Your task to perform on an android device: toggle location history Image 0: 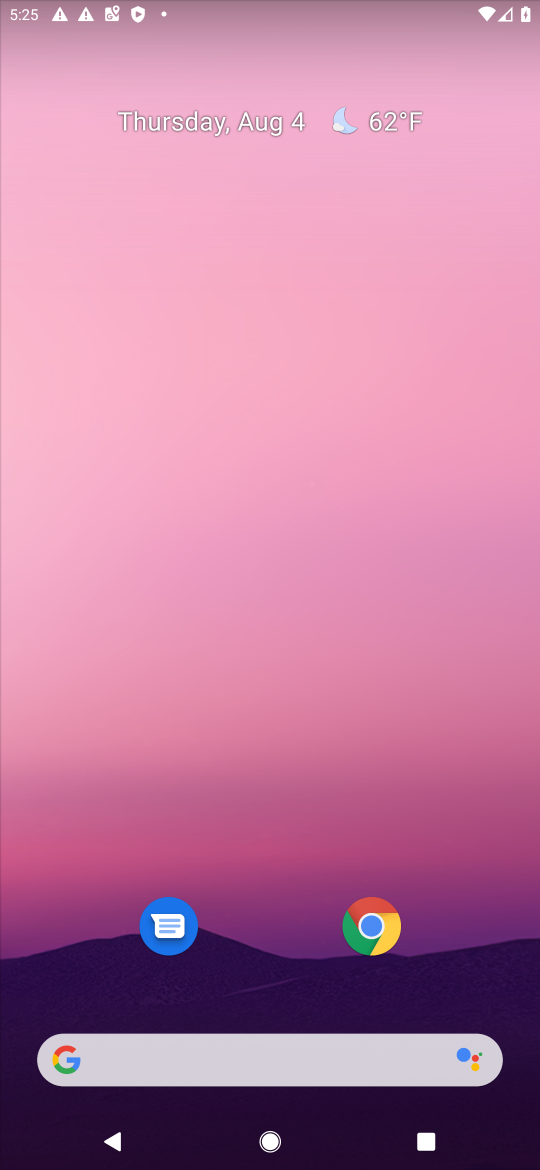
Step 0: press home button
Your task to perform on an android device: toggle location history Image 1: 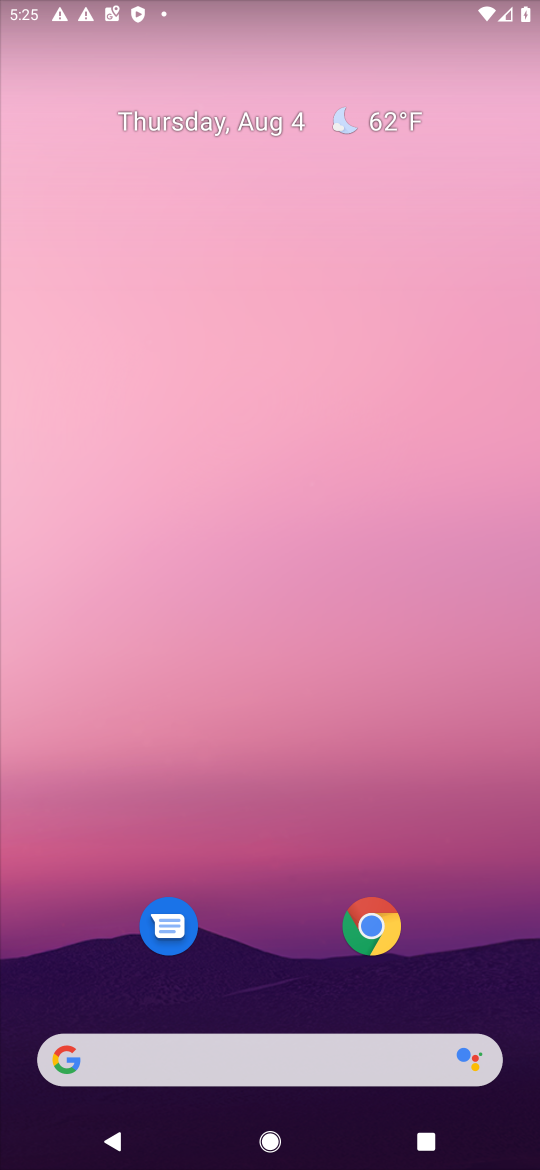
Step 1: drag from (281, 1002) to (385, 173)
Your task to perform on an android device: toggle location history Image 2: 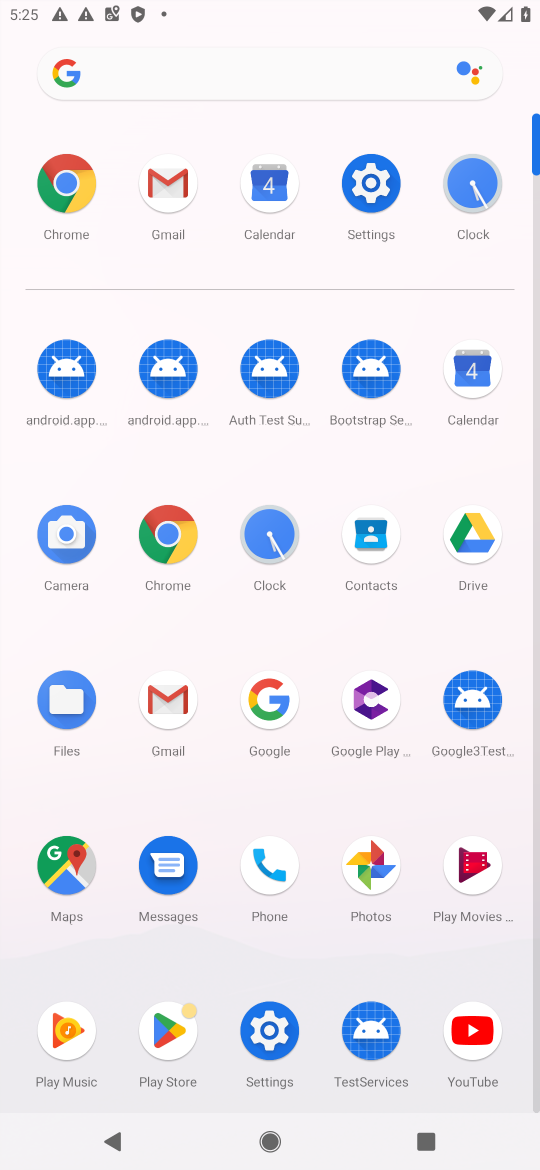
Step 2: click (370, 188)
Your task to perform on an android device: toggle location history Image 3: 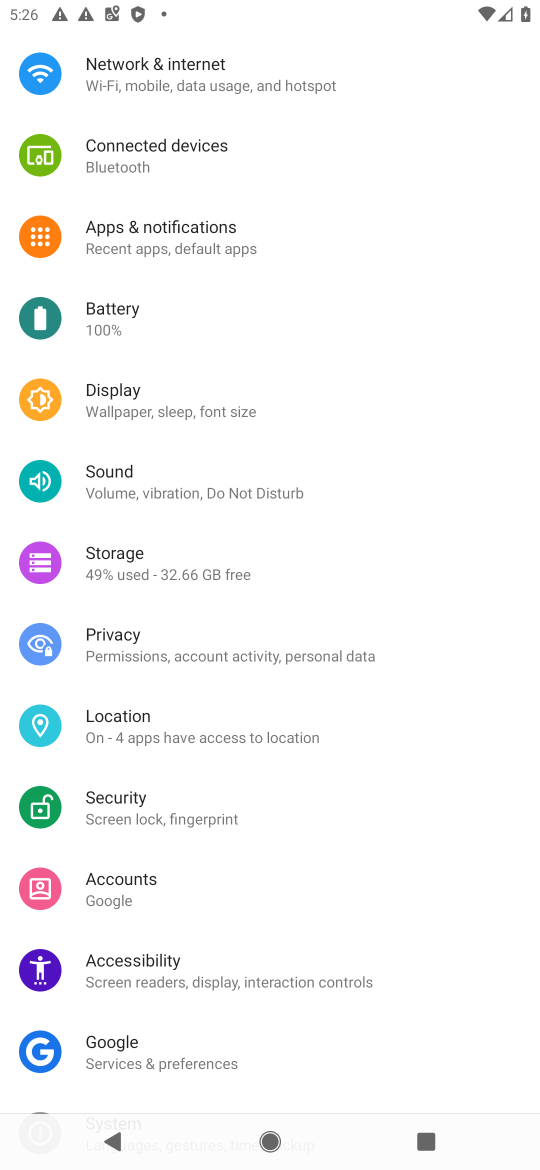
Step 3: click (101, 730)
Your task to perform on an android device: toggle location history Image 4: 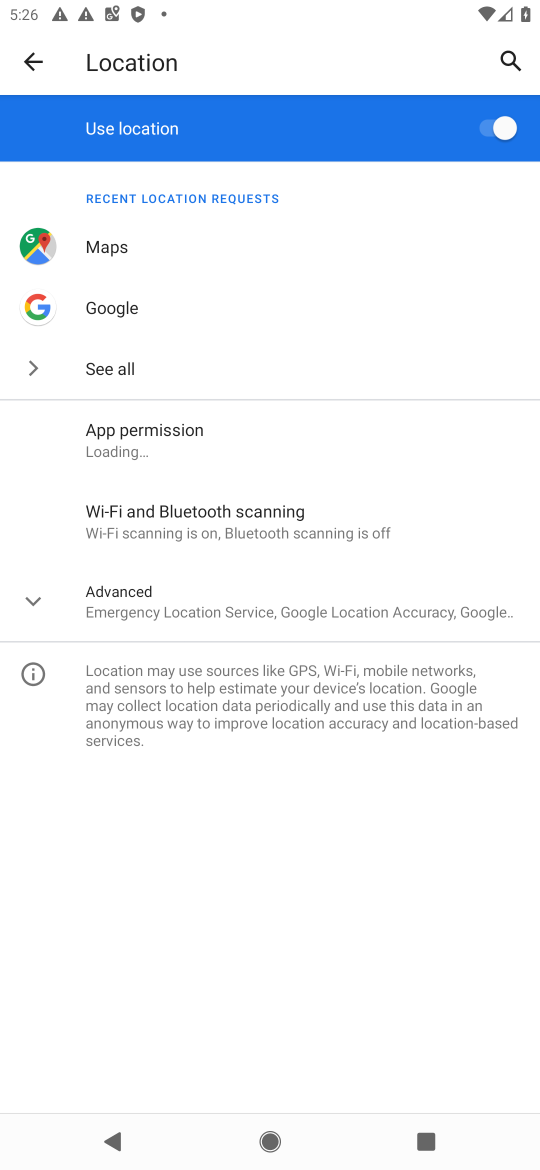
Step 4: click (154, 602)
Your task to perform on an android device: toggle location history Image 5: 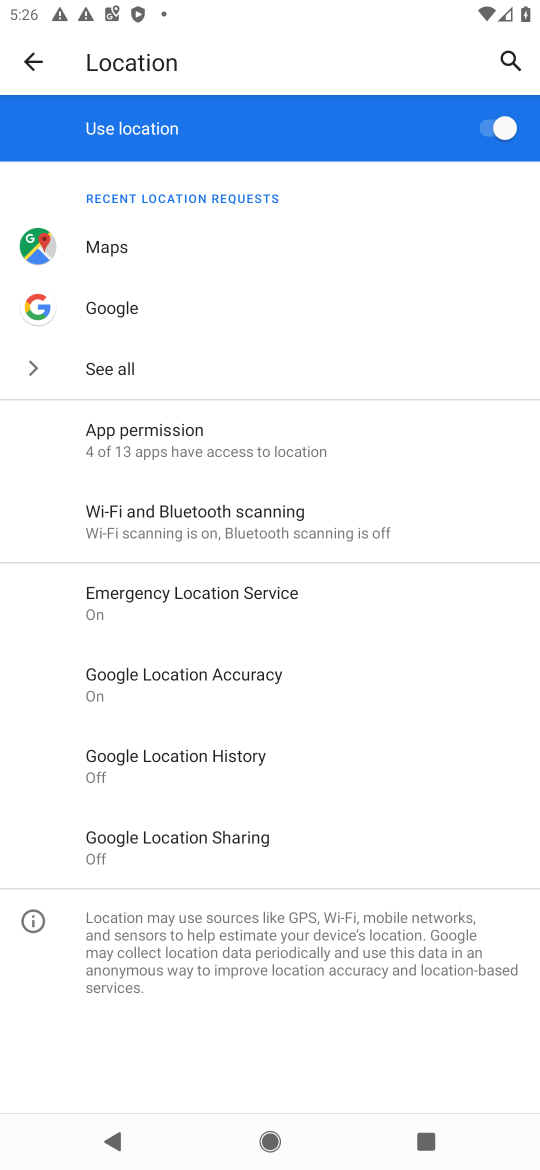
Step 5: click (218, 759)
Your task to perform on an android device: toggle location history Image 6: 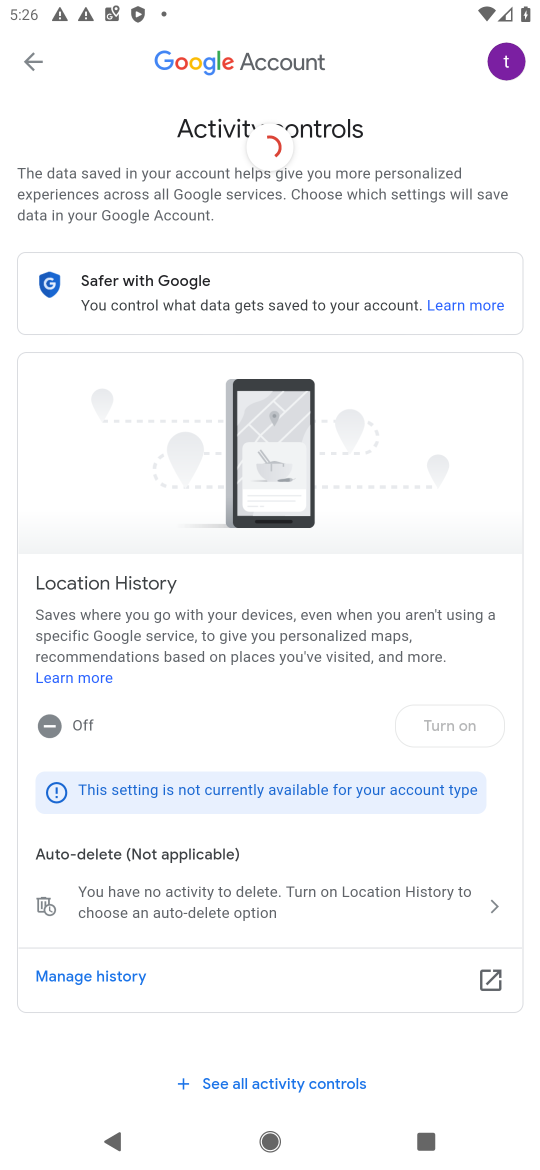
Step 6: click (466, 726)
Your task to perform on an android device: toggle location history Image 7: 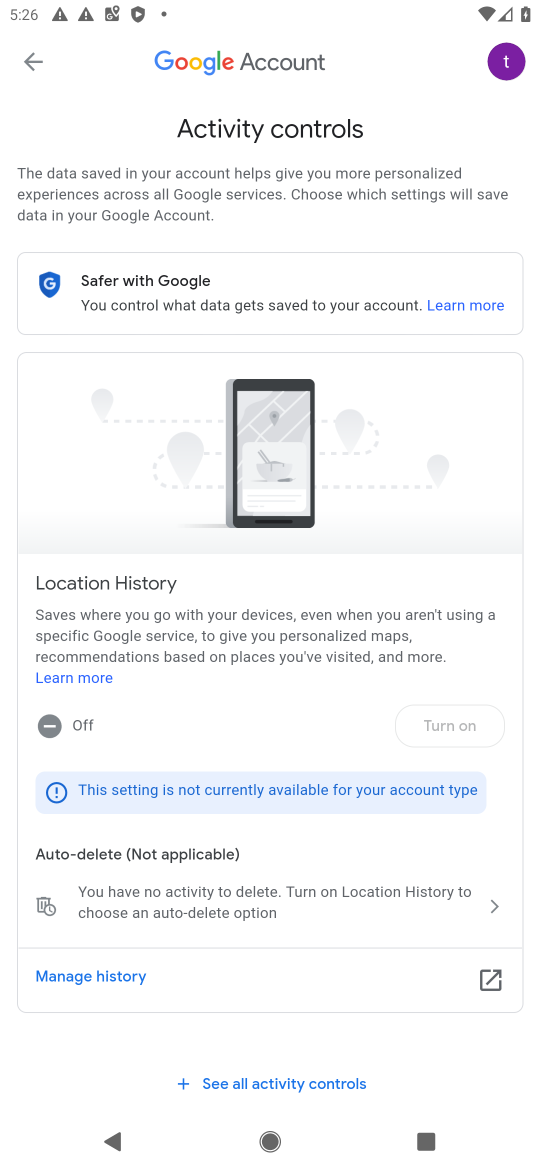
Step 7: task complete